Your task to perform on an android device: check android version Image 0: 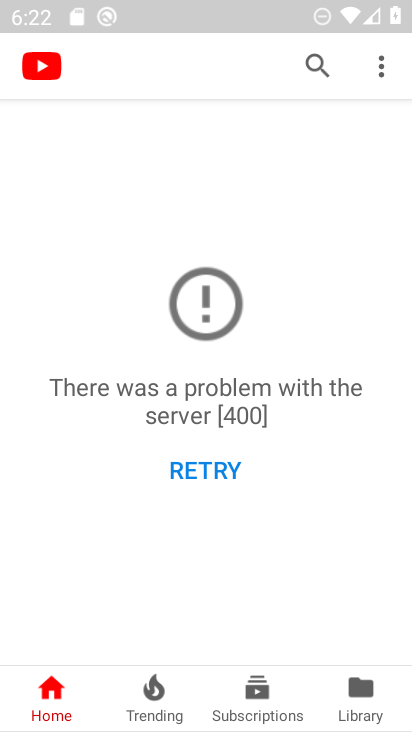
Step 0: press home button
Your task to perform on an android device: check android version Image 1: 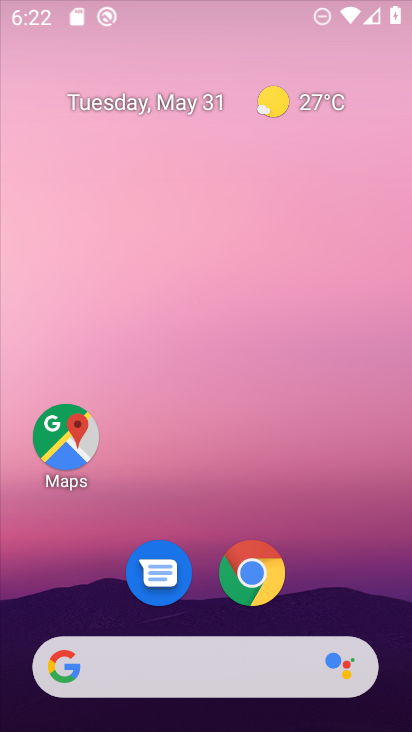
Step 1: drag from (372, 603) to (285, 6)
Your task to perform on an android device: check android version Image 2: 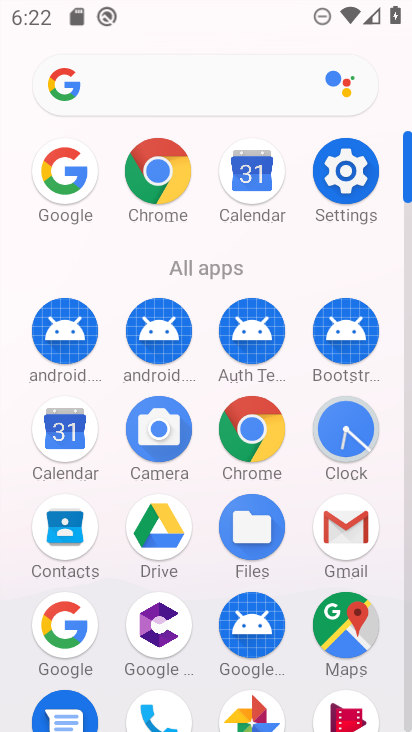
Step 2: click (355, 170)
Your task to perform on an android device: check android version Image 3: 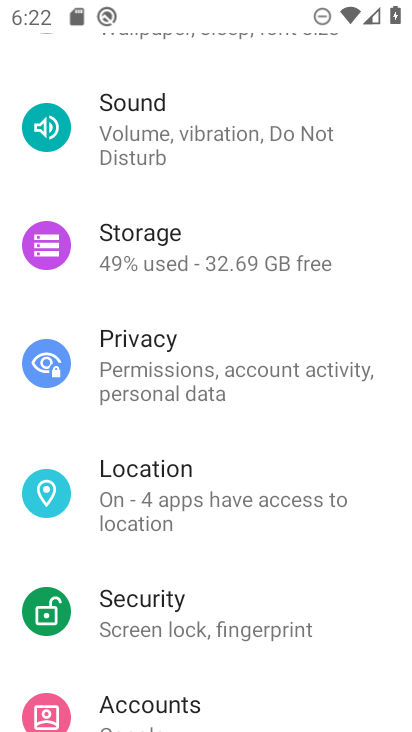
Step 3: drag from (172, 653) to (134, 9)
Your task to perform on an android device: check android version Image 4: 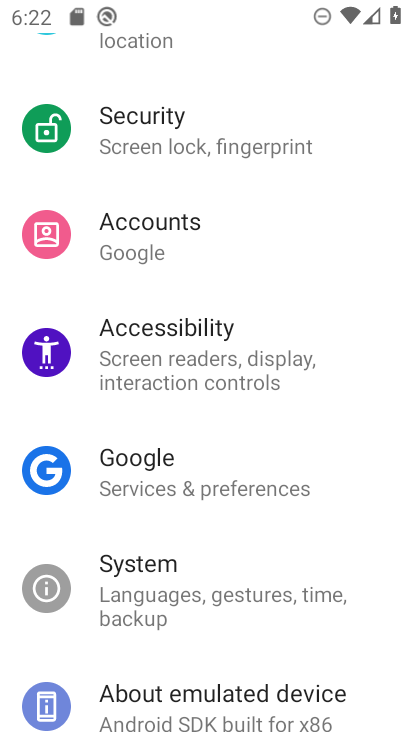
Step 4: click (122, 704)
Your task to perform on an android device: check android version Image 5: 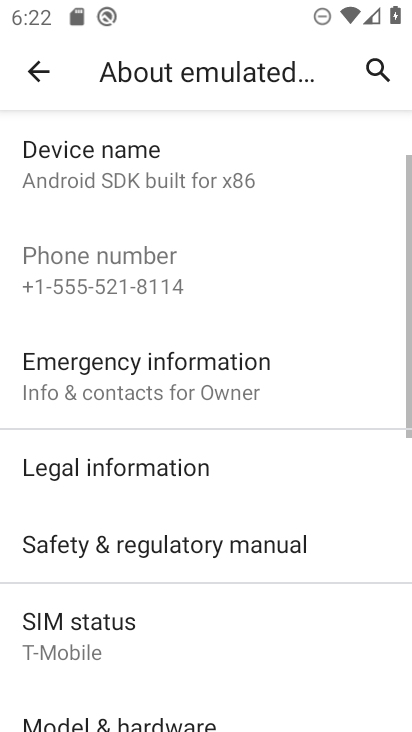
Step 5: drag from (112, 625) to (155, 65)
Your task to perform on an android device: check android version Image 6: 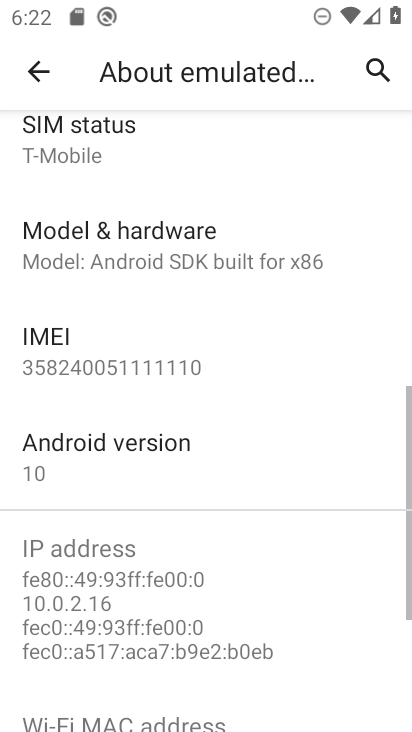
Step 6: click (111, 457)
Your task to perform on an android device: check android version Image 7: 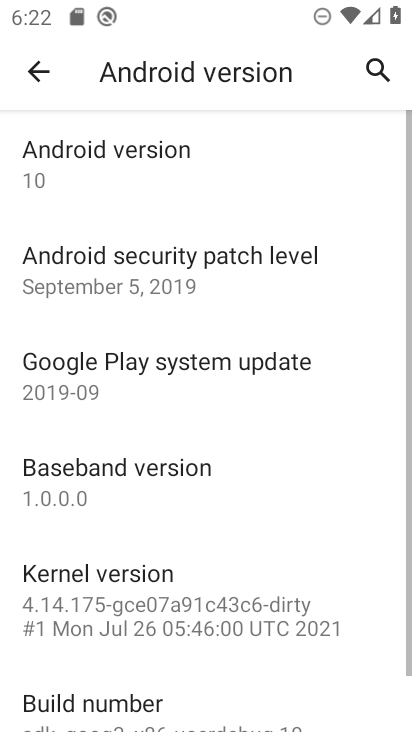
Step 7: task complete